Your task to perform on an android device: Open Yahoo.com Image 0: 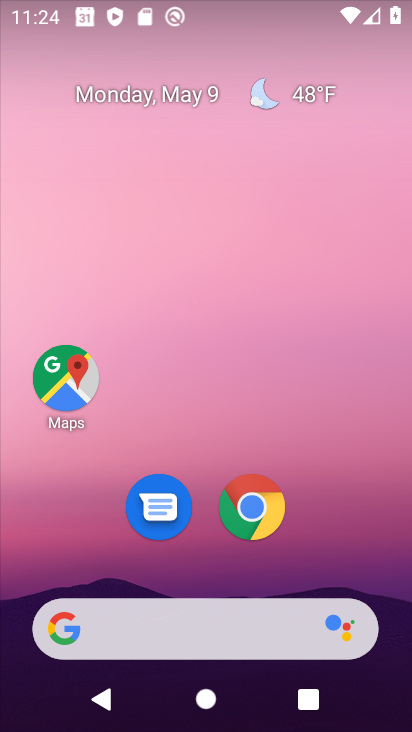
Step 0: click (258, 510)
Your task to perform on an android device: Open Yahoo.com Image 1: 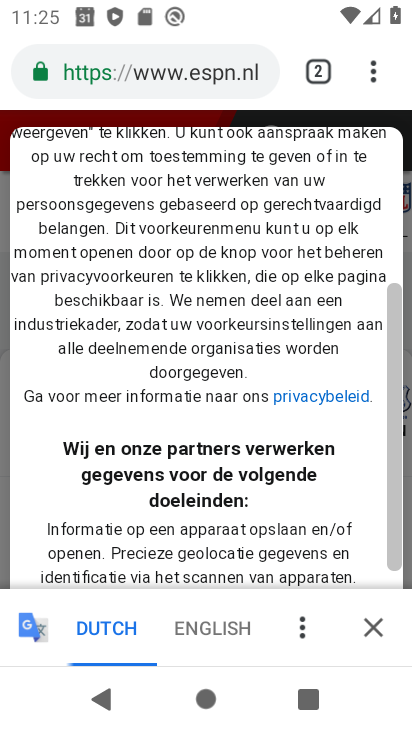
Step 1: click (322, 67)
Your task to perform on an android device: Open Yahoo.com Image 2: 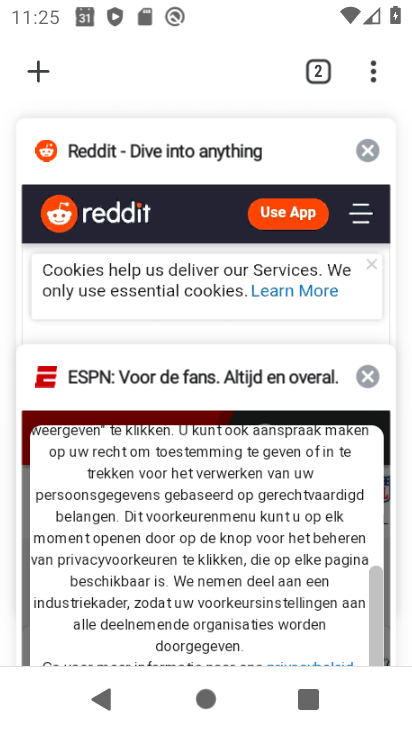
Step 2: click (34, 66)
Your task to perform on an android device: Open Yahoo.com Image 3: 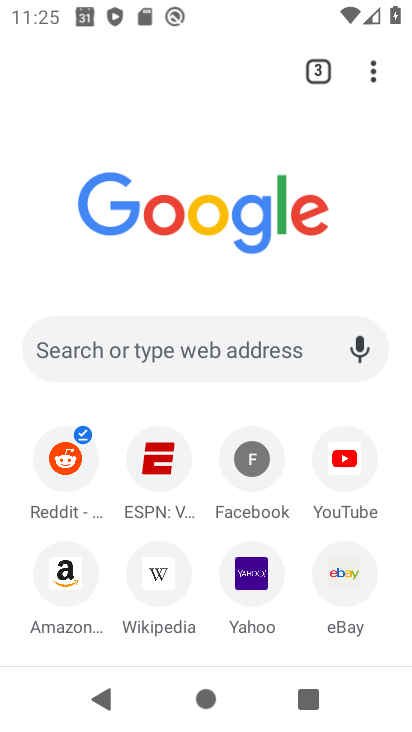
Step 3: click (250, 570)
Your task to perform on an android device: Open Yahoo.com Image 4: 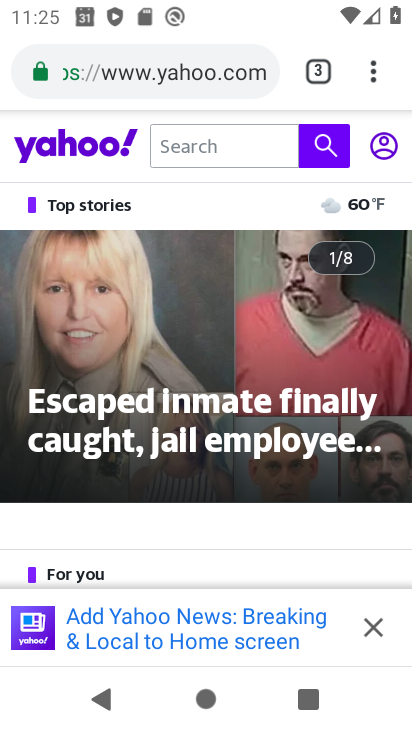
Step 4: task complete